Your task to perform on an android device: turn off notifications in google photos Image 0: 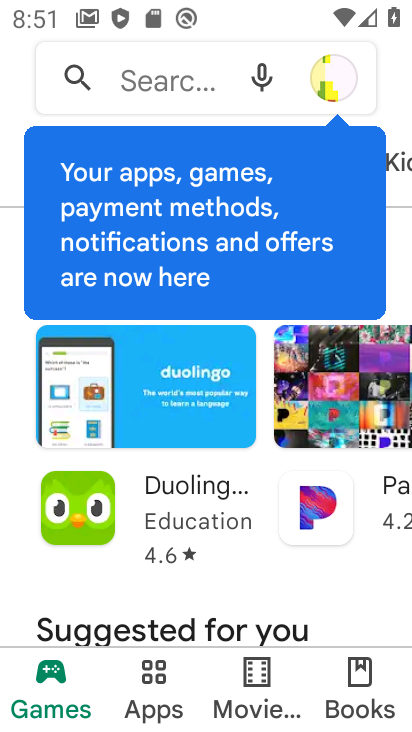
Step 0: press home button
Your task to perform on an android device: turn off notifications in google photos Image 1: 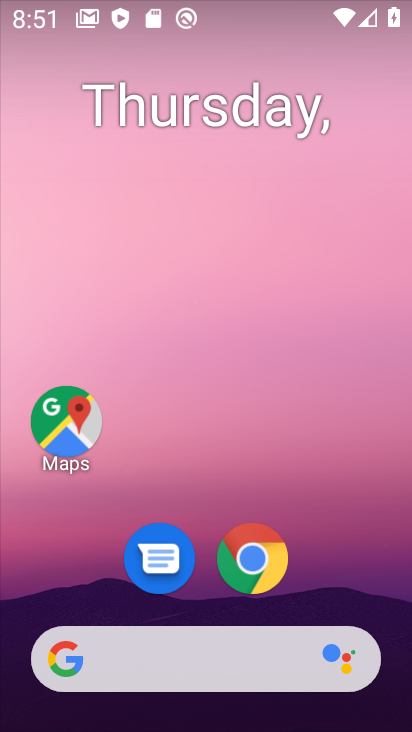
Step 1: drag from (343, 599) to (283, 7)
Your task to perform on an android device: turn off notifications in google photos Image 2: 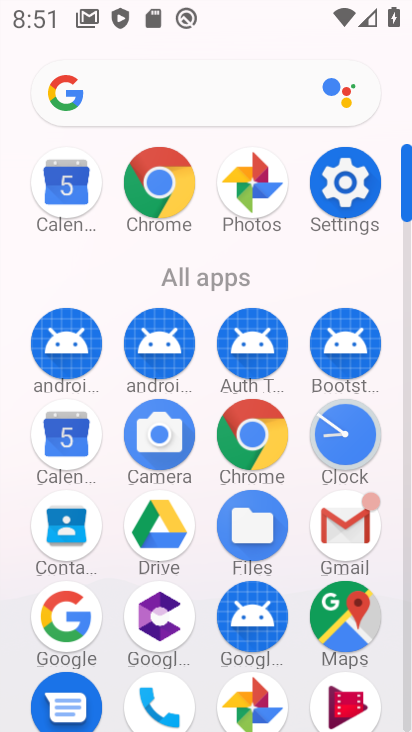
Step 2: click (408, 702)
Your task to perform on an android device: turn off notifications in google photos Image 3: 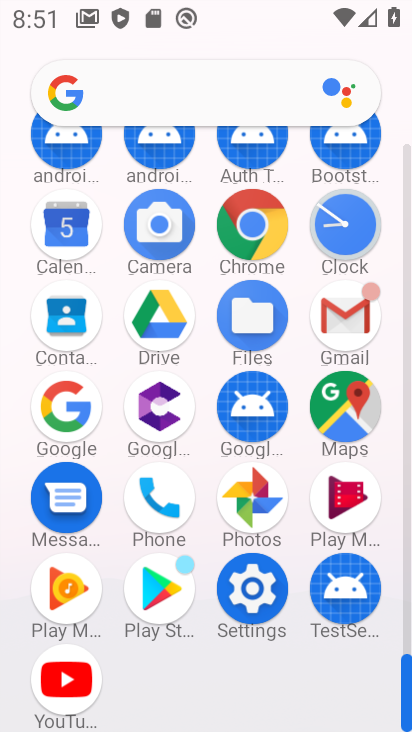
Step 3: click (251, 495)
Your task to perform on an android device: turn off notifications in google photos Image 4: 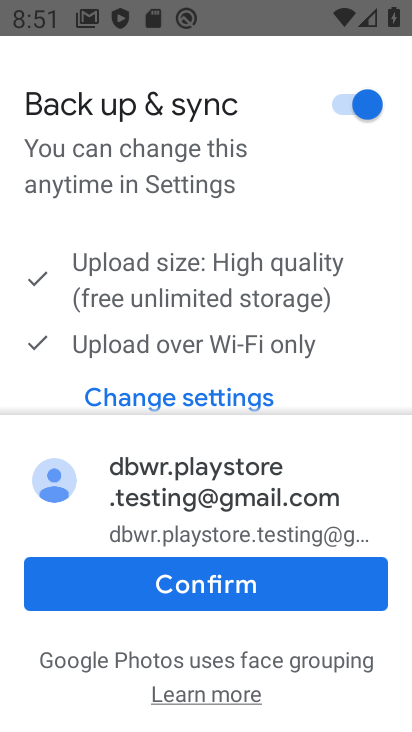
Step 4: click (185, 583)
Your task to perform on an android device: turn off notifications in google photos Image 5: 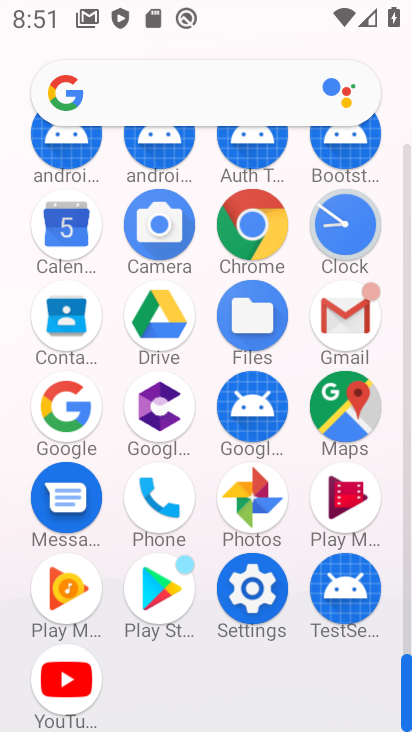
Step 5: click (249, 495)
Your task to perform on an android device: turn off notifications in google photos Image 6: 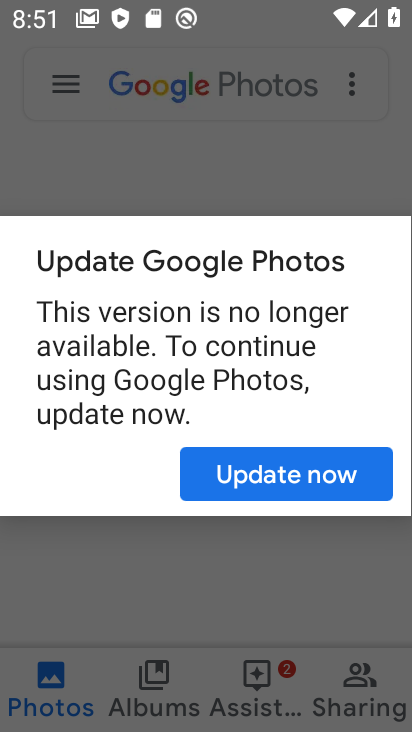
Step 6: click (287, 470)
Your task to perform on an android device: turn off notifications in google photos Image 7: 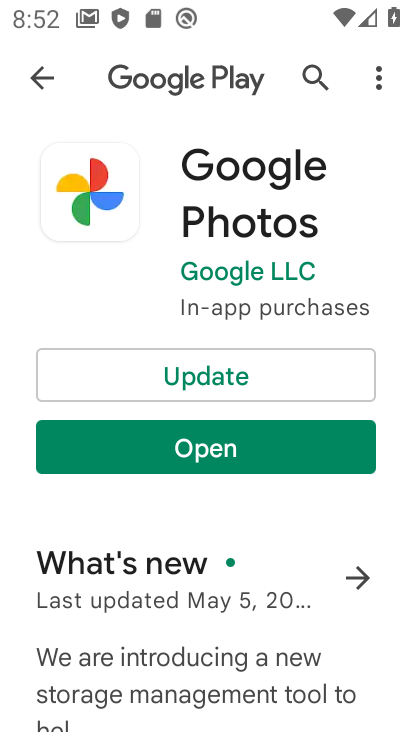
Step 7: click (206, 449)
Your task to perform on an android device: turn off notifications in google photos Image 8: 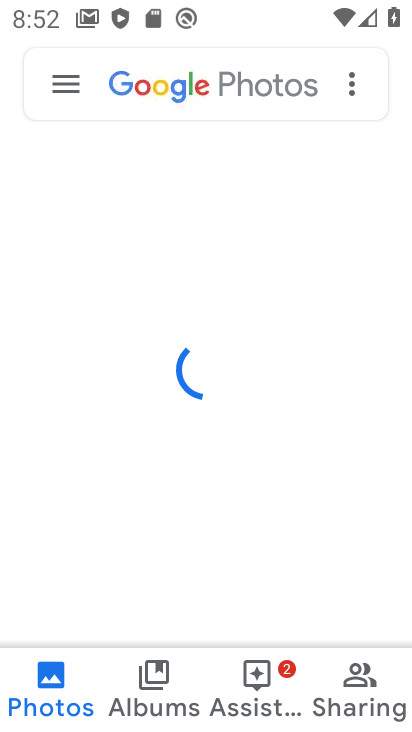
Step 8: click (65, 80)
Your task to perform on an android device: turn off notifications in google photos Image 9: 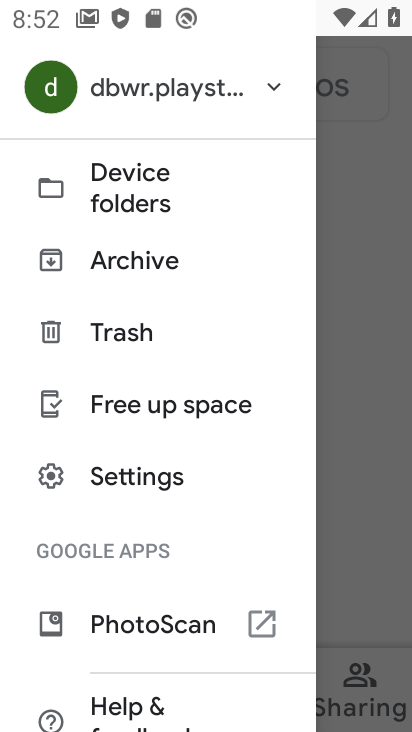
Step 9: click (146, 471)
Your task to perform on an android device: turn off notifications in google photos Image 10: 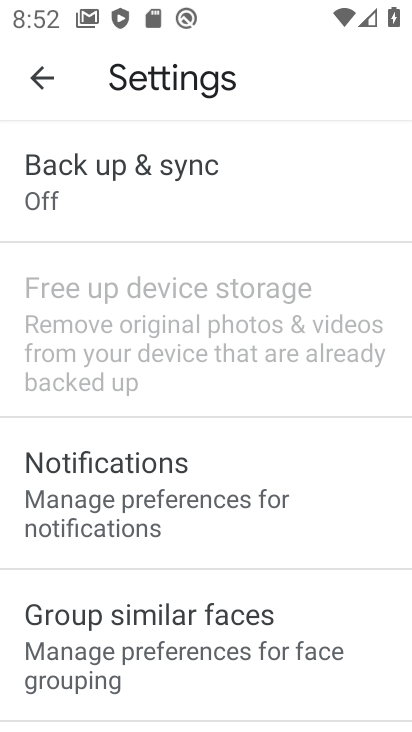
Step 10: click (132, 488)
Your task to perform on an android device: turn off notifications in google photos Image 11: 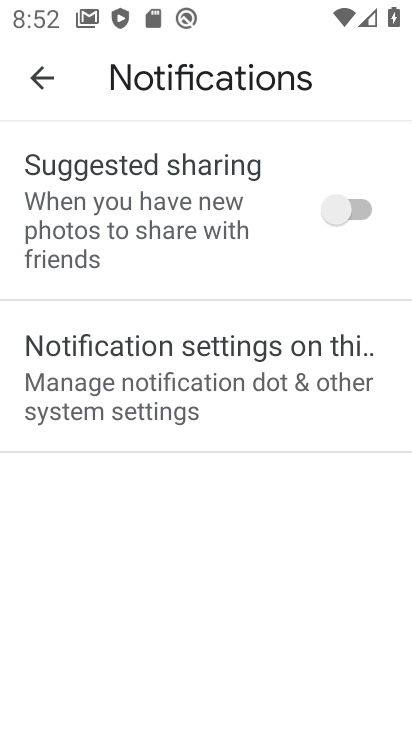
Step 11: click (150, 379)
Your task to perform on an android device: turn off notifications in google photos Image 12: 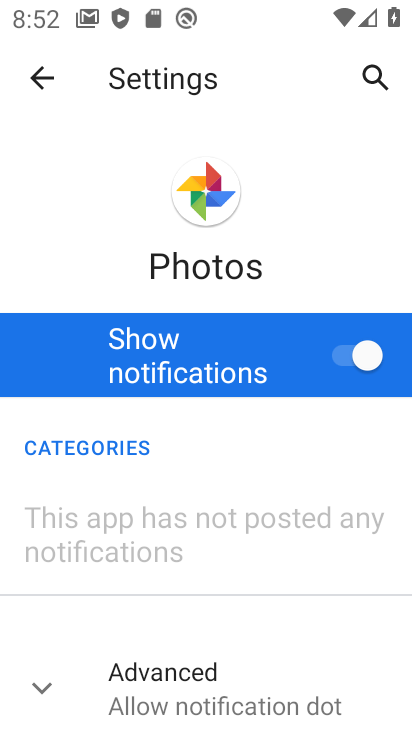
Step 12: click (340, 360)
Your task to perform on an android device: turn off notifications in google photos Image 13: 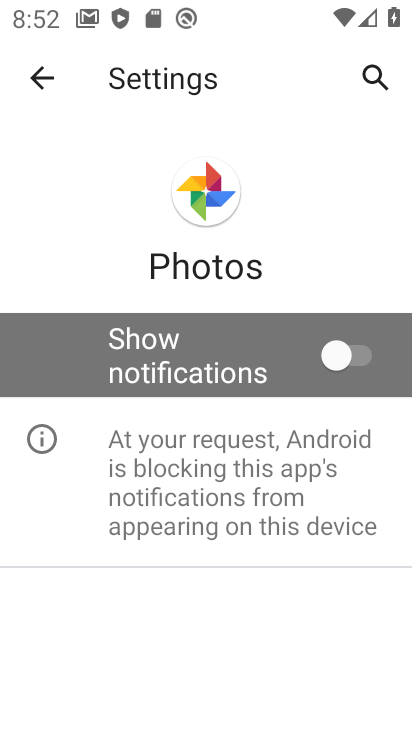
Step 13: task complete